Your task to perform on an android device: Open calendar and show me the fourth week of next month Image 0: 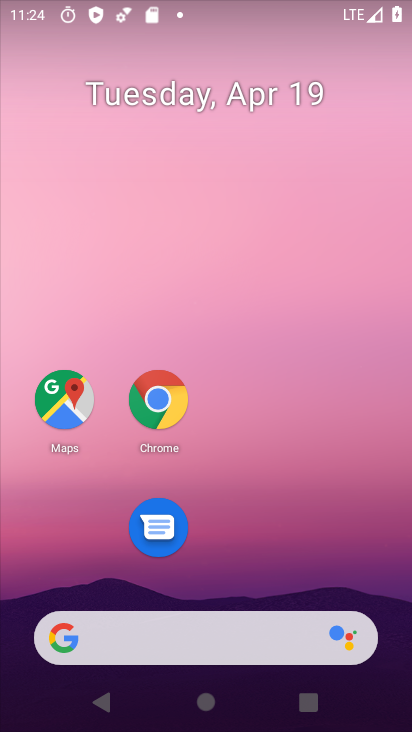
Step 0: drag from (270, 670) to (245, 126)
Your task to perform on an android device: Open calendar and show me the fourth week of next month Image 1: 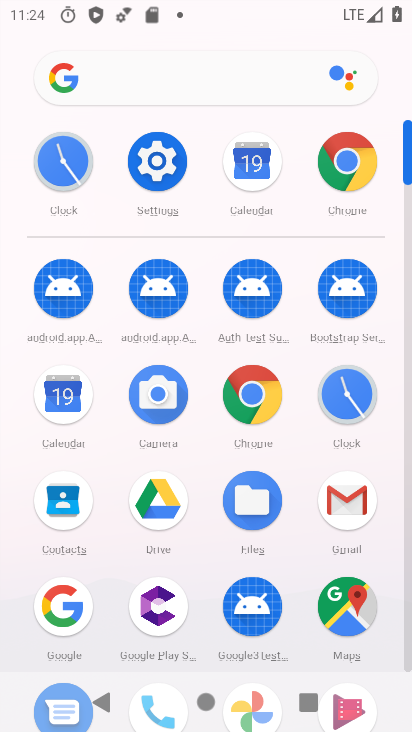
Step 1: click (62, 390)
Your task to perform on an android device: Open calendar and show me the fourth week of next month Image 2: 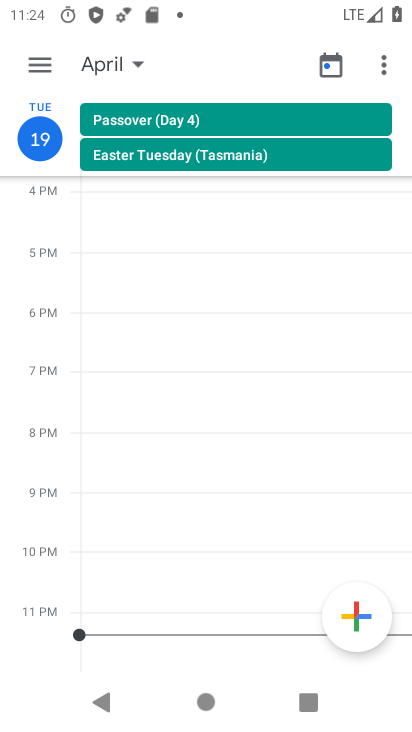
Step 2: click (42, 72)
Your task to perform on an android device: Open calendar and show me the fourth week of next month Image 3: 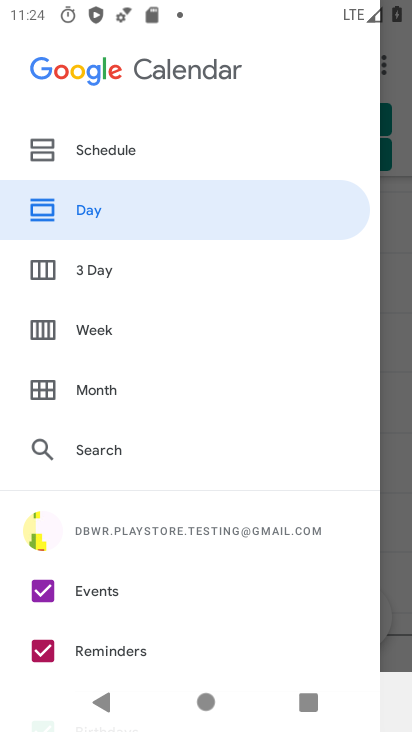
Step 3: click (94, 390)
Your task to perform on an android device: Open calendar and show me the fourth week of next month Image 4: 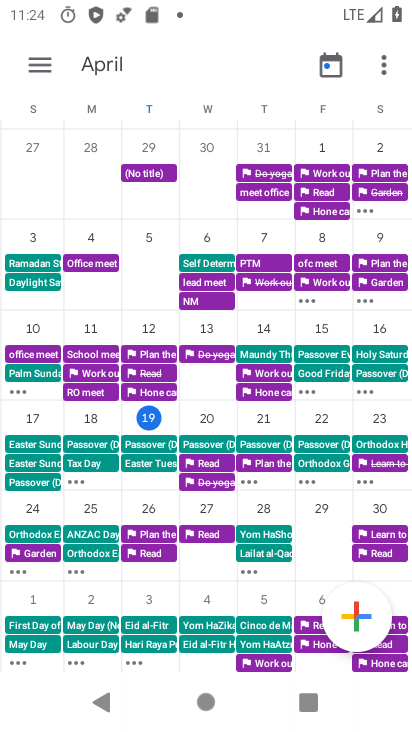
Step 4: drag from (394, 421) to (2, 399)
Your task to perform on an android device: Open calendar and show me the fourth week of next month Image 5: 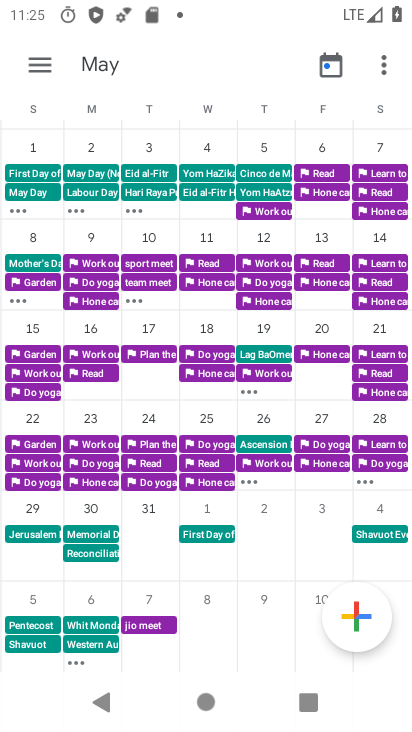
Step 5: click (91, 424)
Your task to perform on an android device: Open calendar and show me the fourth week of next month Image 6: 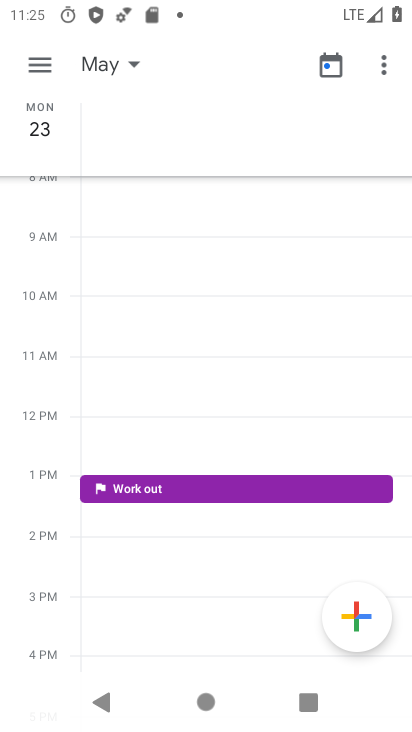
Step 6: task complete